Your task to perform on an android device: open app "LiveIn - Share Your Moment" (install if not already installed) Image 0: 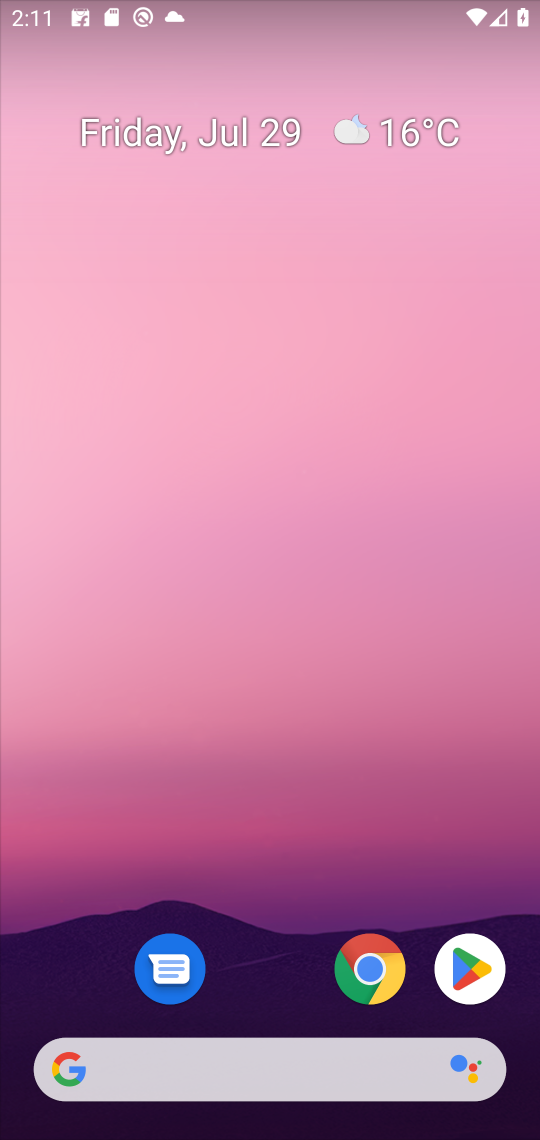
Step 0: press home button
Your task to perform on an android device: open app "LiveIn - Share Your Moment" (install if not already installed) Image 1: 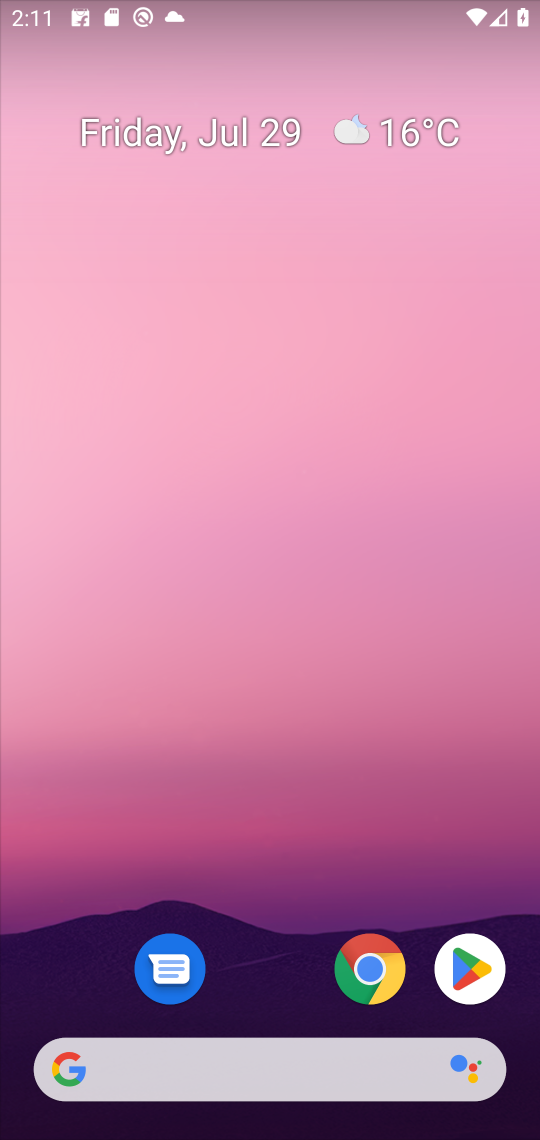
Step 1: click (470, 966)
Your task to perform on an android device: open app "LiveIn - Share Your Moment" (install if not already installed) Image 2: 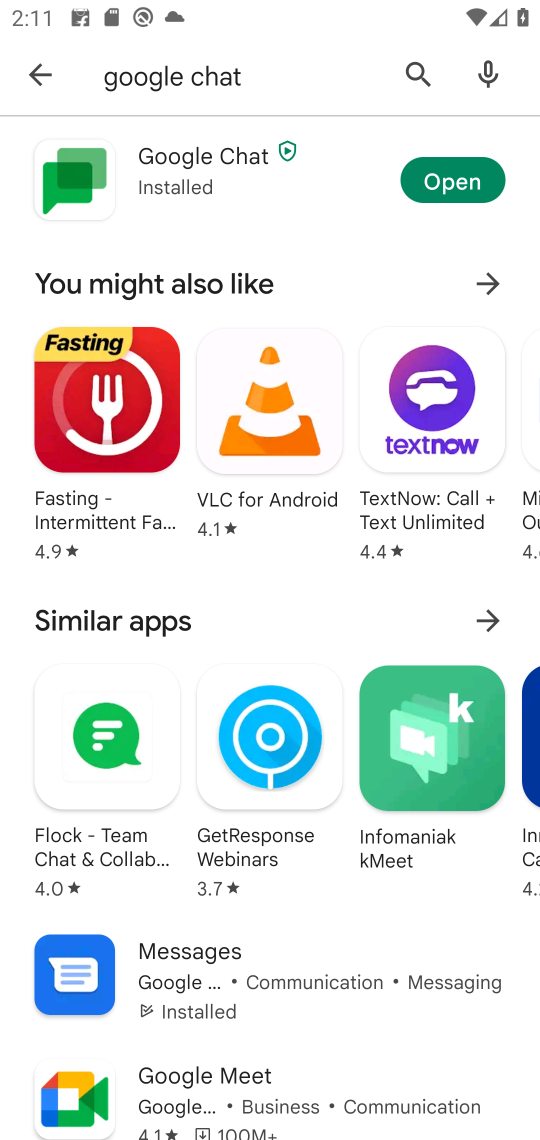
Step 2: type "livein"
Your task to perform on an android device: open app "LiveIn - Share Your Moment" (install if not already installed) Image 3: 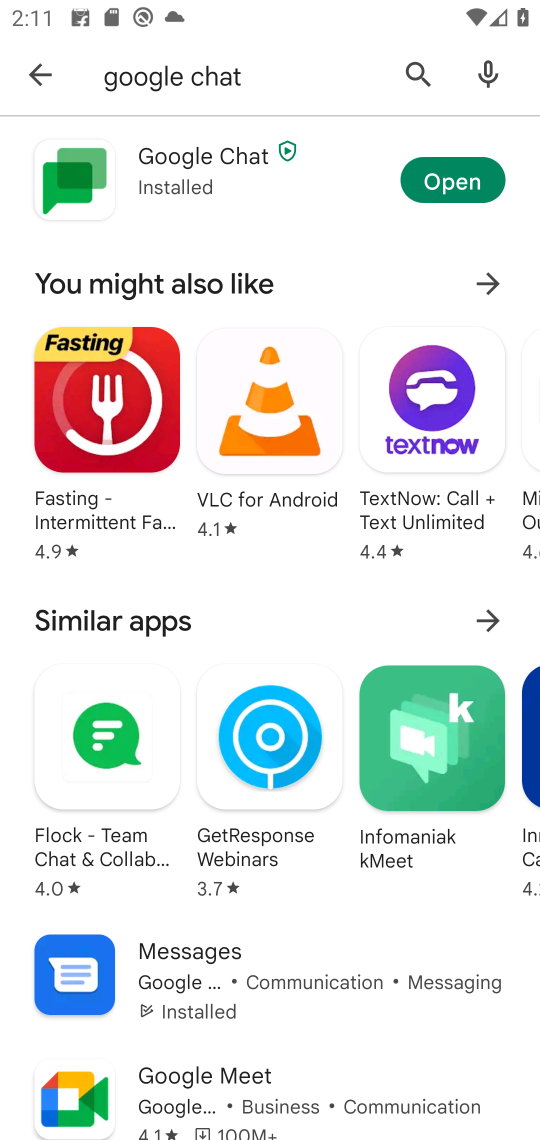
Step 3: click (415, 81)
Your task to perform on an android device: open app "LiveIn - Share Your Moment" (install if not already installed) Image 4: 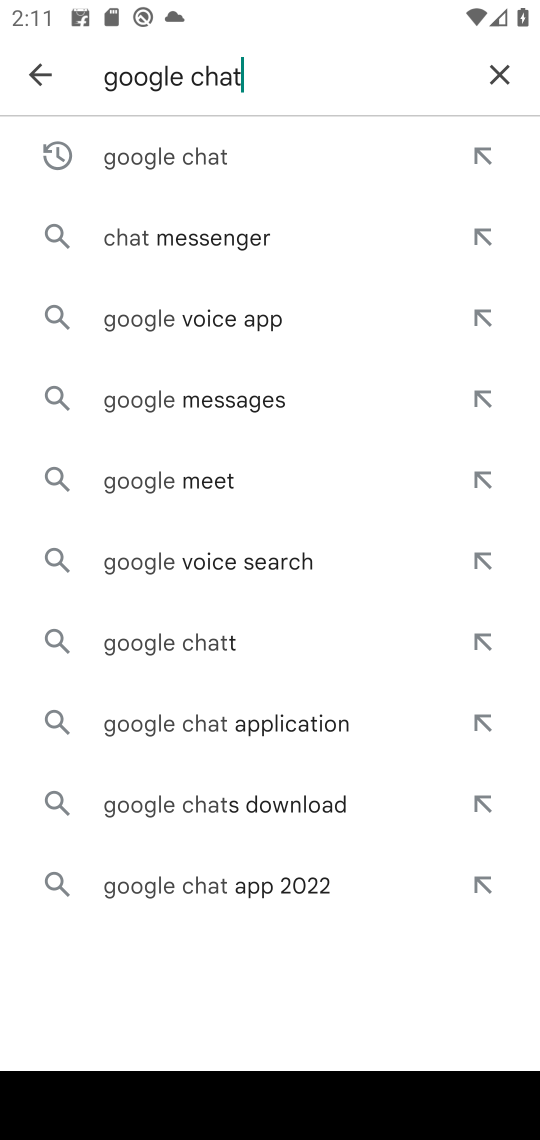
Step 4: click (493, 76)
Your task to perform on an android device: open app "LiveIn - Share Your Moment" (install if not already installed) Image 5: 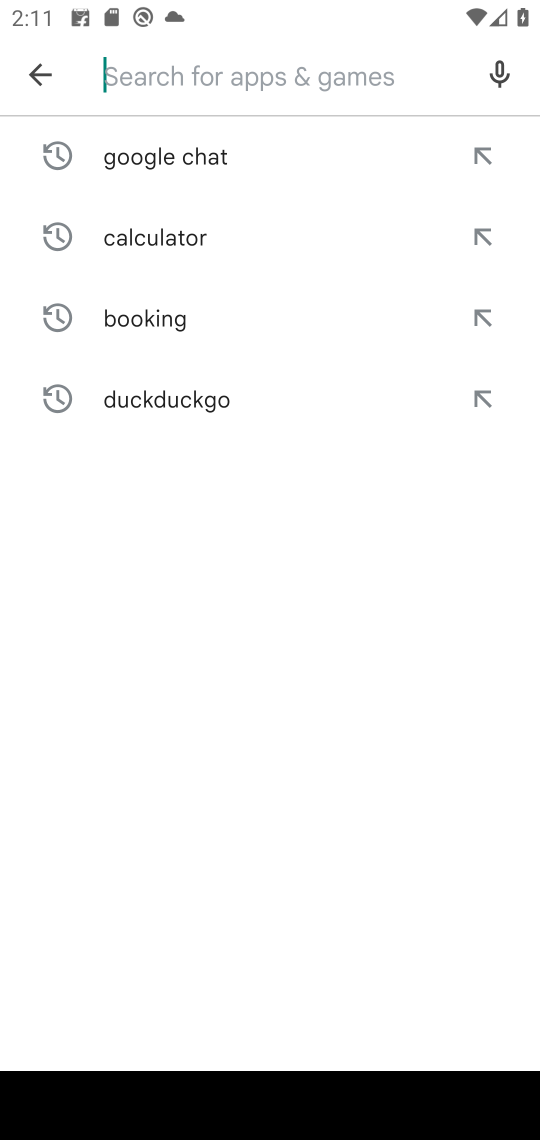
Step 5: type "livein"
Your task to perform on an android device: open app "LiveIn - Share Your Moment" (install if not already installed) Image 6: 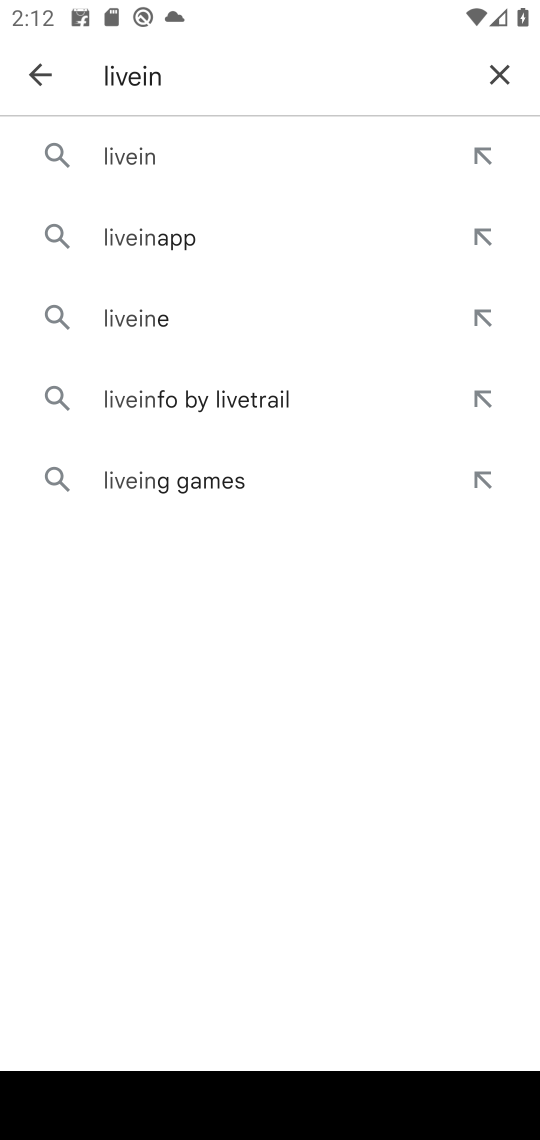
Step 6: click (151, 165)
Your task to perform on an android device: open app "LiveIn - Share Your Moment" (install if not already installed) Image 7: 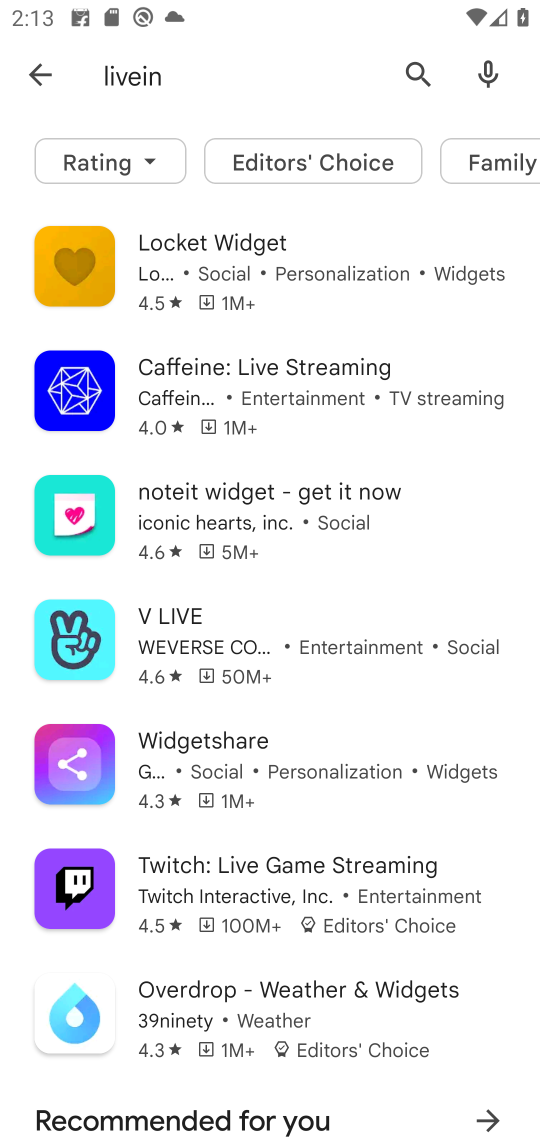
Step 7: task complete